Your task to perform on an android device: find photos in the google photos app Image 0: 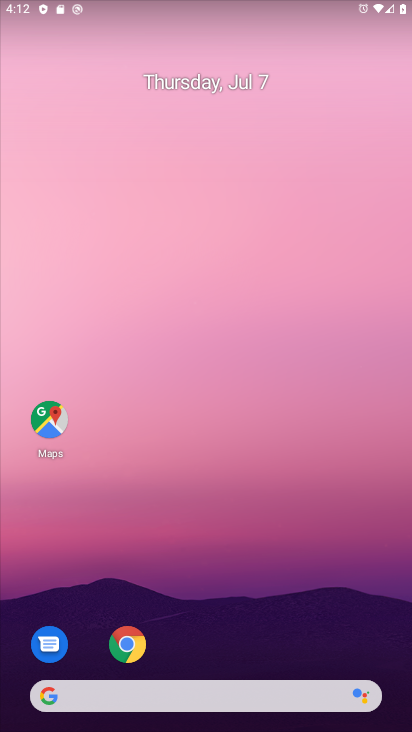
Step 0: drag from (245, 626) to (306, 44)
Your task to perform on an android device: find photos in the google photos app Image 1: 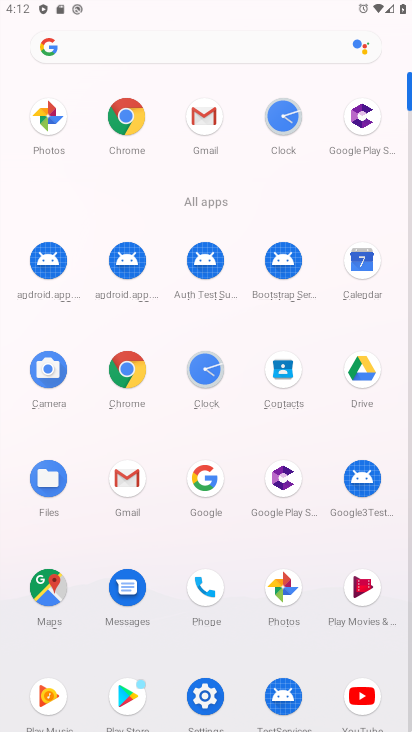
Step 1: click (50, 118)
Your task to perform on an android device: find photos in the google photos app Image 2: 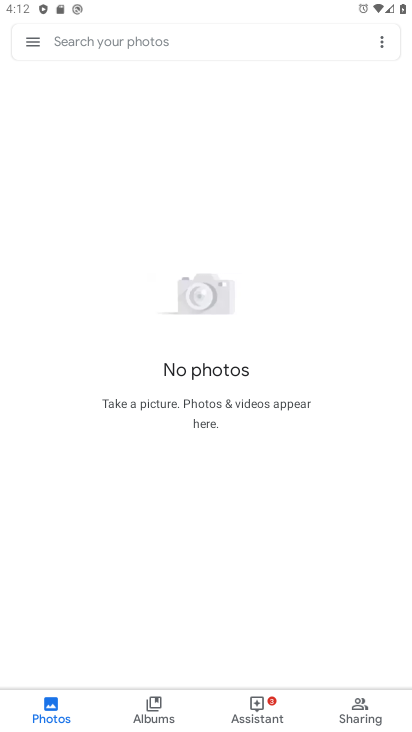
Step 2: click (32, 38)
Your task to perform on an android device: find photos in the google photos app Image 3: 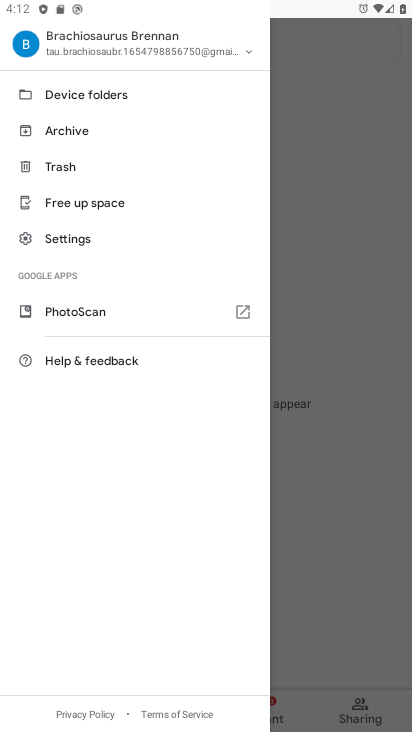
Step 3: click (317, 258)
Your task to perform on an android device: find photos in the google photos app Image 4: 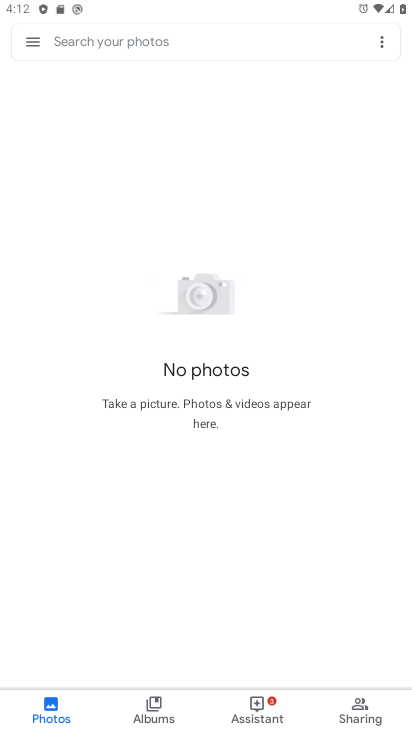
Step 4: click (154, 696)
Your task to perform on an android device: find photos in the google photos app Image 5: 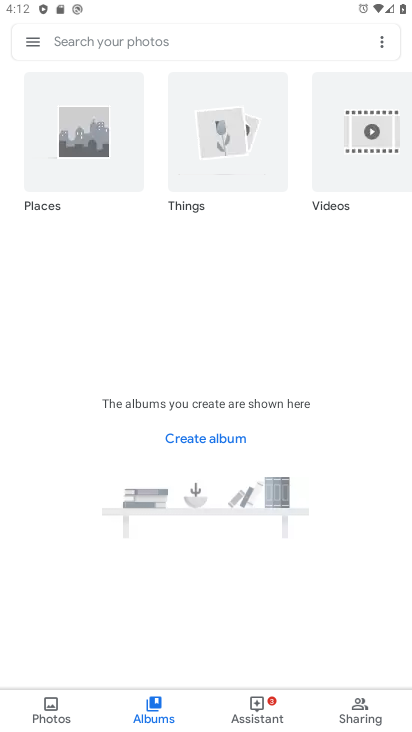
Step 5: click (381, 42)
Your task to perform on an android device: find photos in the google photos app Image 6: 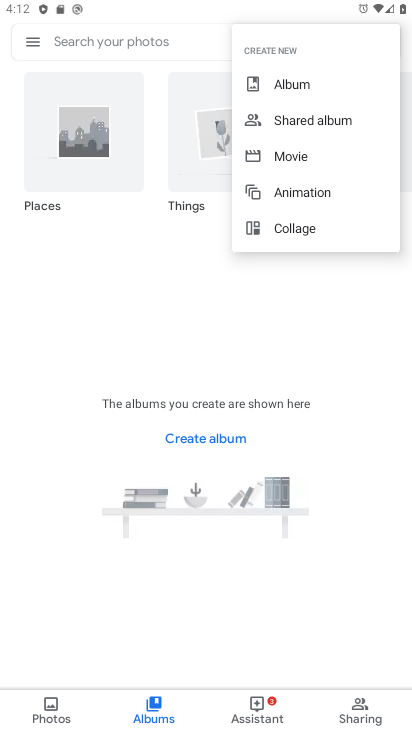
Step 6: click (201, 319)
Your task to perform on an android device: find photos in the google photos app Image 7: 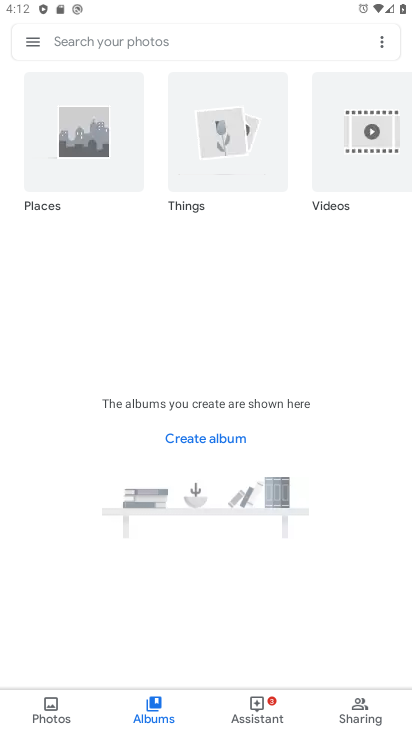
Step 7: task complete